Your task to perform on an android device: open a bookmark in the chrome app Image 0: 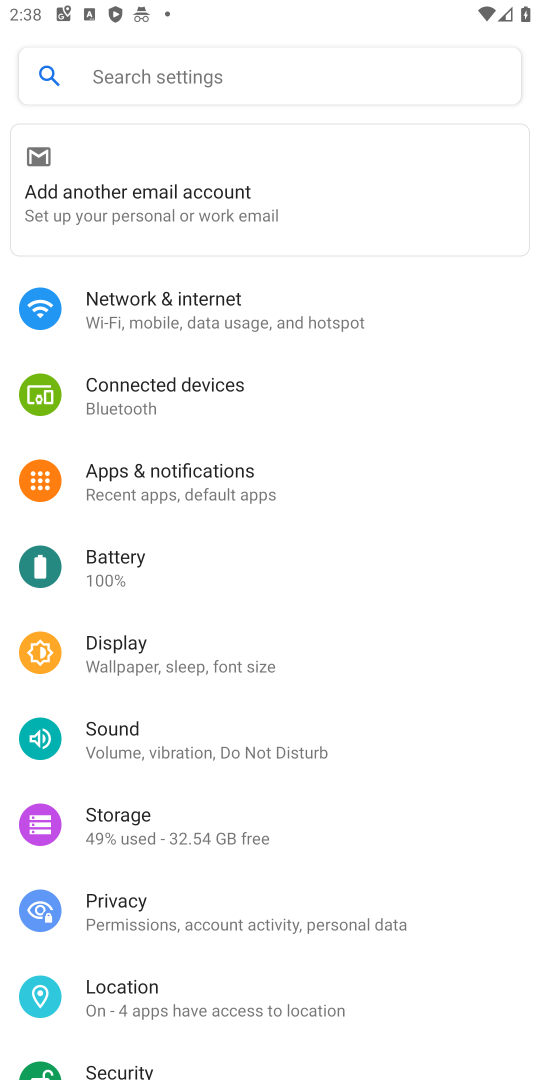
Step 0: press home button
Your task to perform on an android device: open a bookmark in the chrome app Image 1: 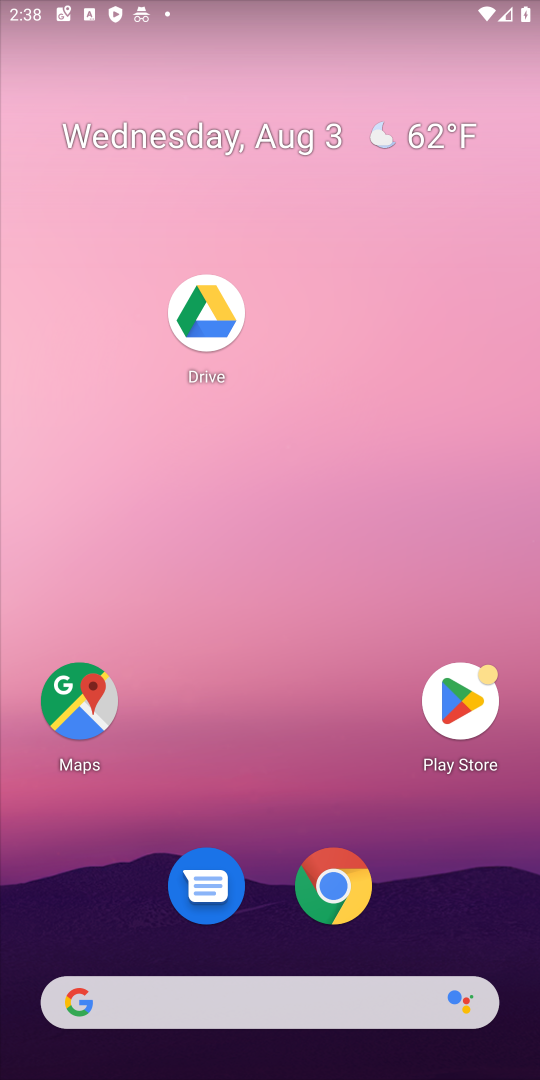
Step 1: drag from (267, 939) to (424, 104)
Your task to perform on an android device: open a bookmark in the chrome app Image 2: 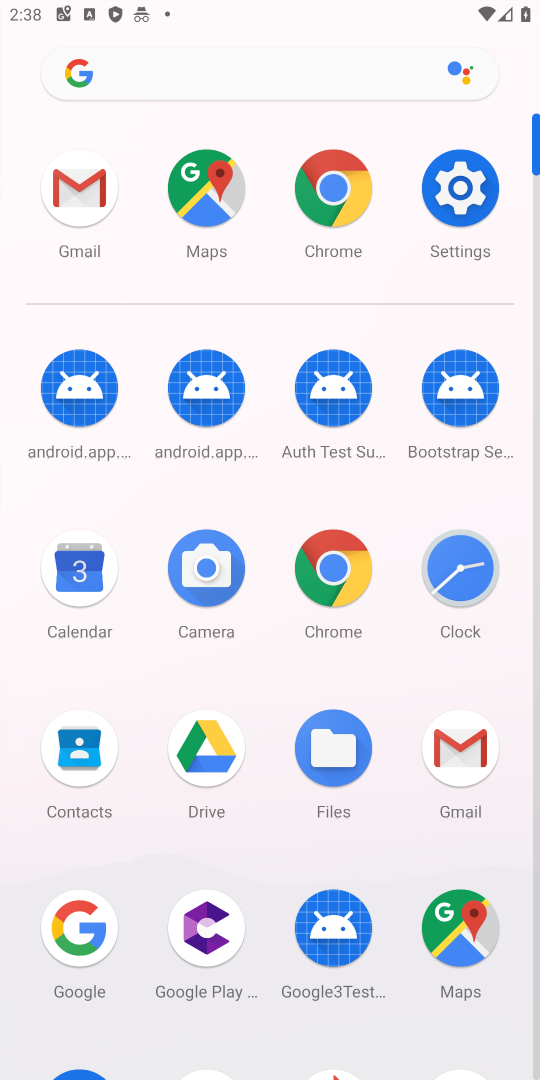
Step 2: click (337, 563)
Your task to perform on an android device: open a bookmark in the chrome app Image 3: 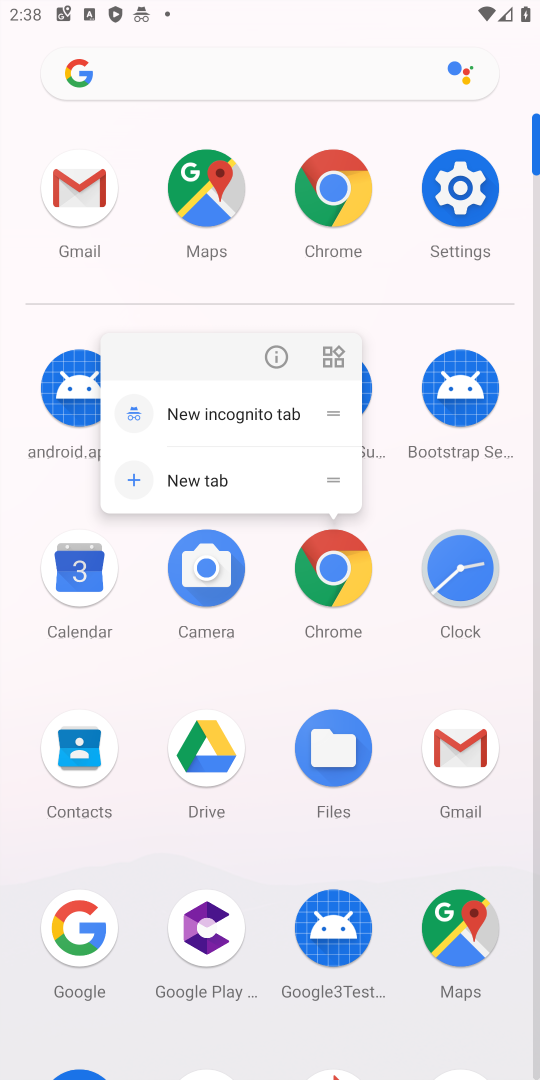
Step 3: click (332, 555)
Your task to perform on an android device: open a bookmark in the chrome app Image 4: 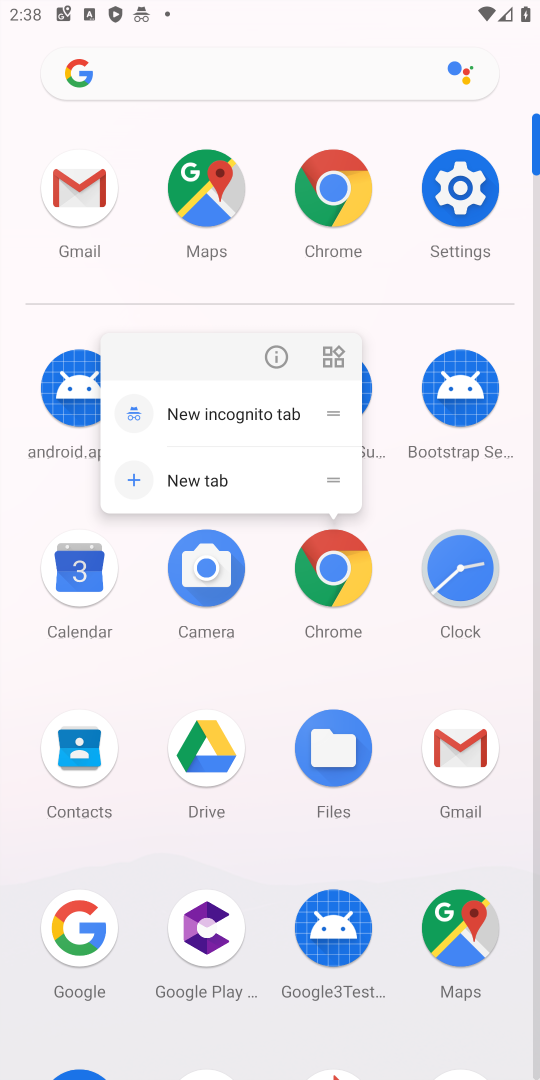
Step 4: click (332, 555)
Your task to perform on an android device: open a bookmark in the chrome app Image 5: 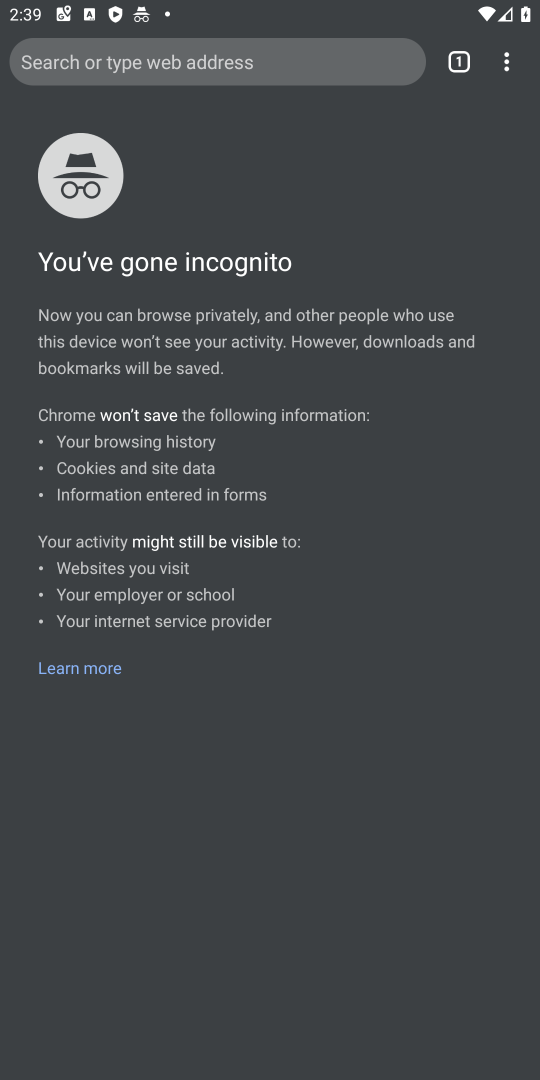
Step 5: press back button
Your task to perform on an android device: open a bookmark in the chrome app Image 6: 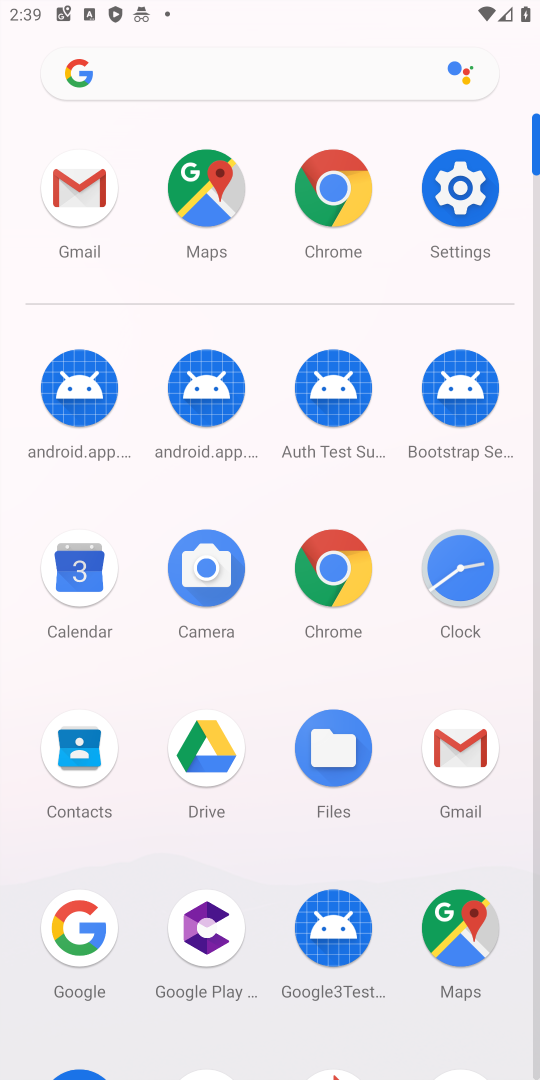
Step 6: click (350, 569)
Your task to perform on an android device: open a bookmark in the chrome app Image 7: 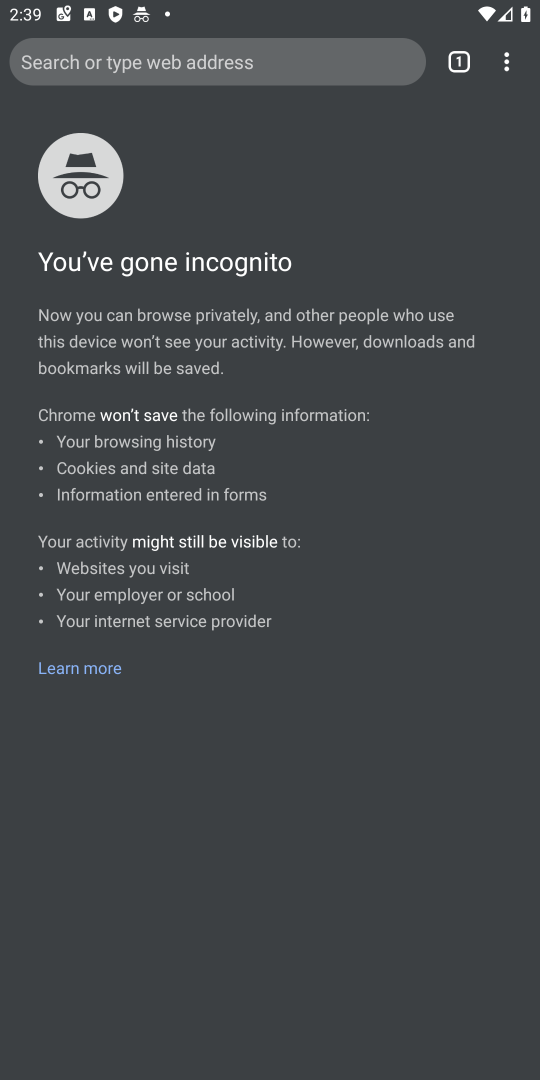
Step 7: drag from (504, 56) to (351, 135)
Your task to perform on an android device: open a bookmark in the chrome app Image 8: 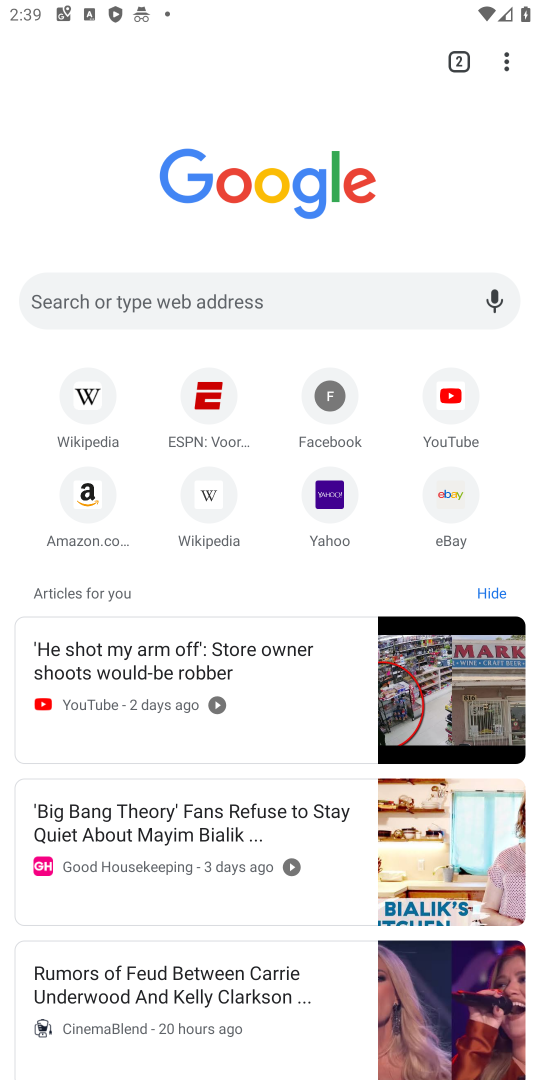
Step 8: click (506, 55)
Your task to perform on an android device: open a bookmark in the chrome app Image 9: 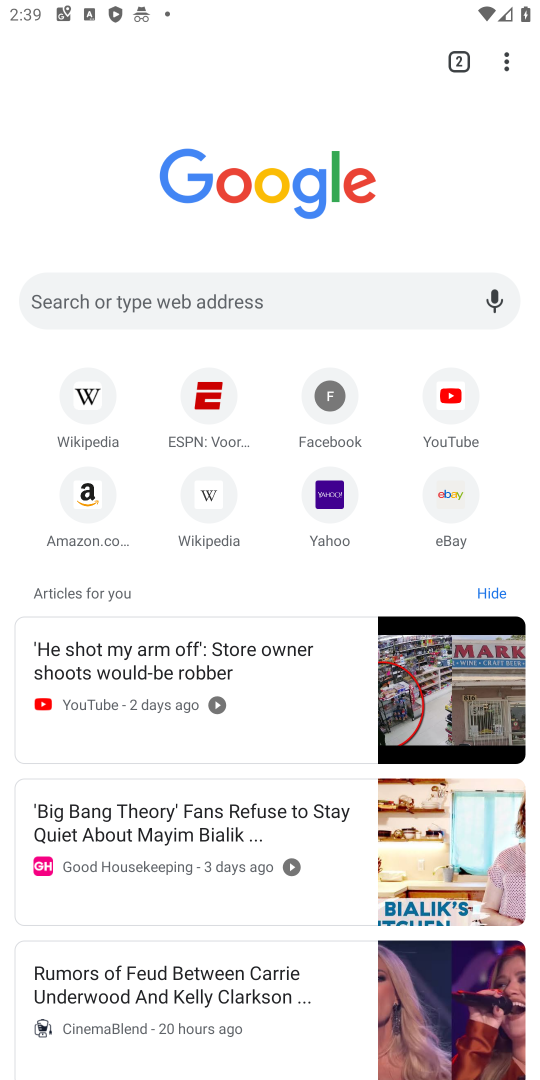
Step 9: task complete